Your task to perform on an android device: Go to accessibility settings Image 0: 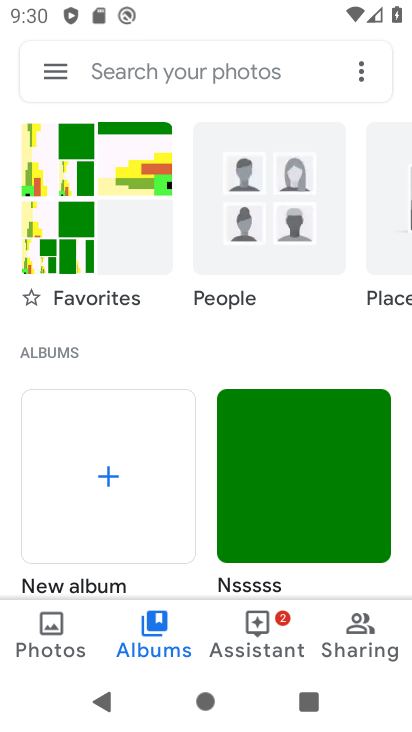
Step 0: press home button
Your task to perform on an android device: Go to accessibility settings Image 1: 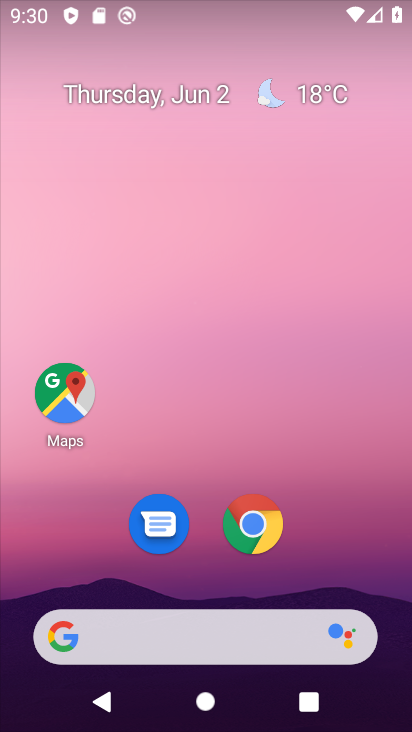
Step 1: drag from (203, 447) to (191, 20)
Your task to perform on an android device: Go to accessibility settings Image 2: 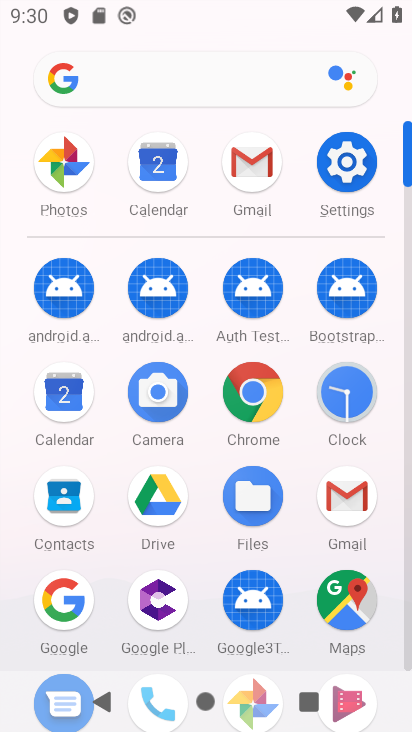
Step 2: click (347, 163)
Your task to perform on an android device: Go to accessibility settings Image 3: 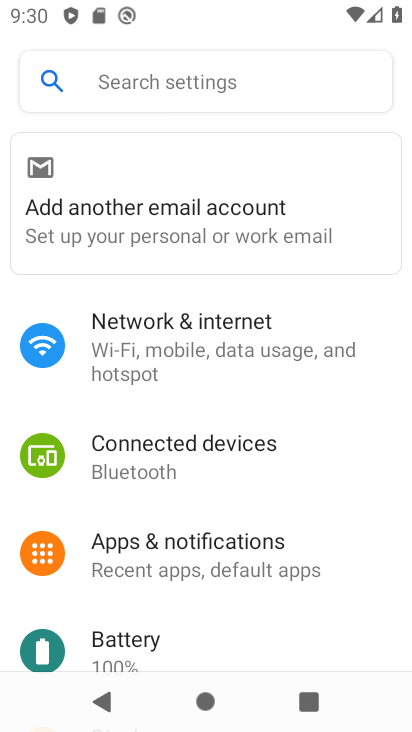
Step 3: drag from (232, 599) to (235, 78)
Your task to perform on an android device: Go to accessibility settings Image 4: 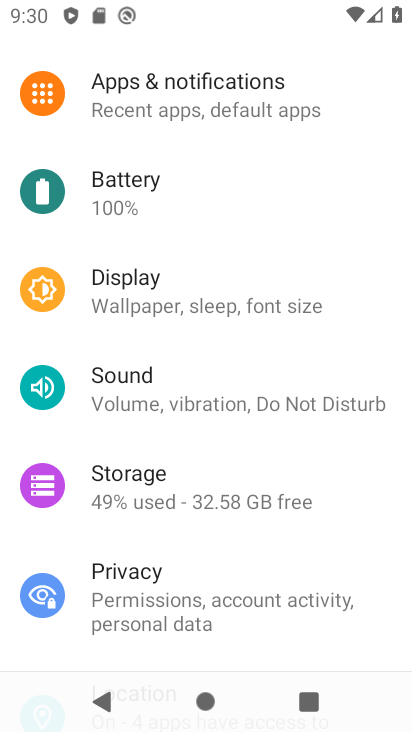
Step 4: drag from (239, 549) to (222, 51)
Your task to perform on an android device: Go to accessibility settings Image 5: 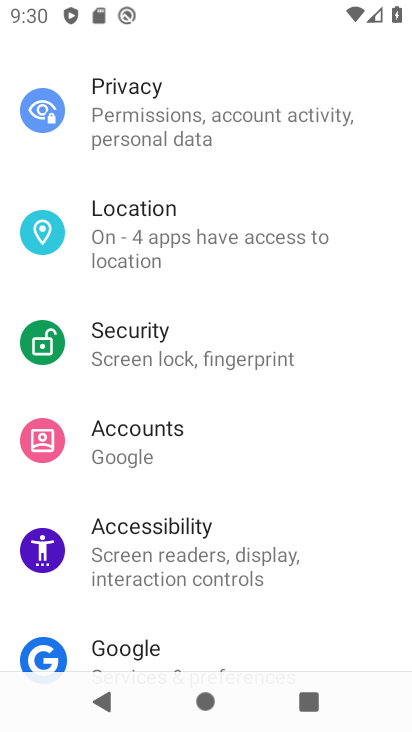
Step 5: click (216, 537)
Your task to perform on an android device: Go to accessibility settings Image 6: 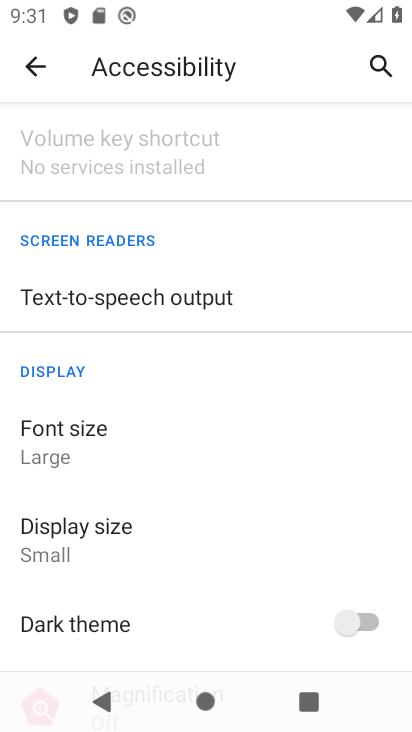
Step 6: task complete